Your task to perform on an android device: uninstall "Pandora - Music & Podcasts" Image 0: 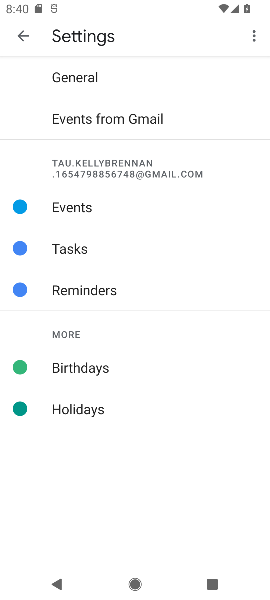
Step 0: click (20, 27)
Your task to perform on an android device: uninstall "Pandora - Music & Podcasts" Image 1: 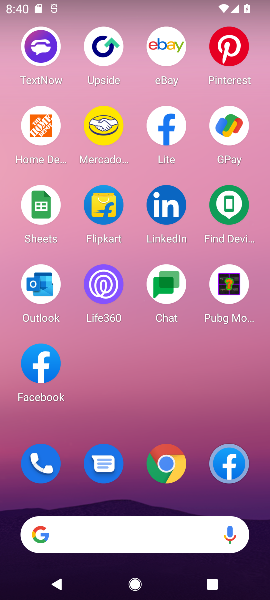
Step 1: drag from (128, 467) to (100, 0)
Your task to perform on an android device: uninstall "Pandora - Music & Podcasts" Image 2: 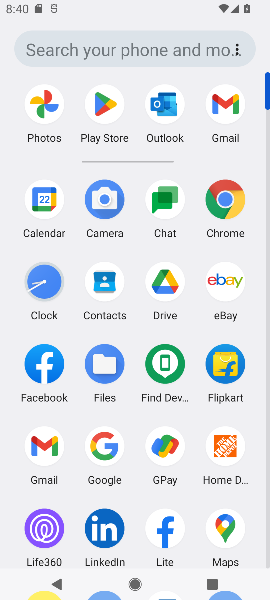
Step 2: click (101, 102)
Your task to perform on an android device: uninstall "Pandora - Music & Podcasts" Image 3: 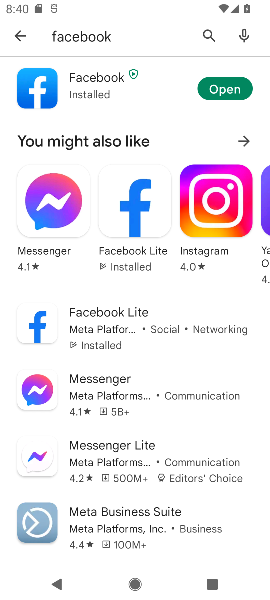
Step 3: click (105, 82)
Your task to perform on an android device: uninstall "Pandora - Music & Podcasts" Image 4: 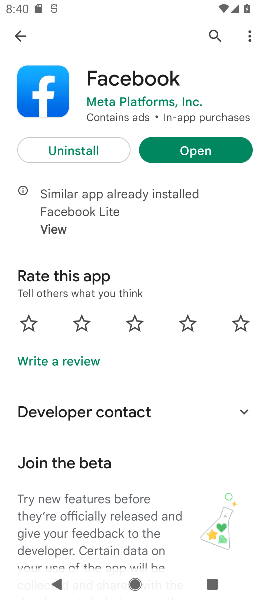
Step 4: click (60, 153)
Your task to perform on an android device: uninstall "Pandora - Music & Podcasts" Image 5: 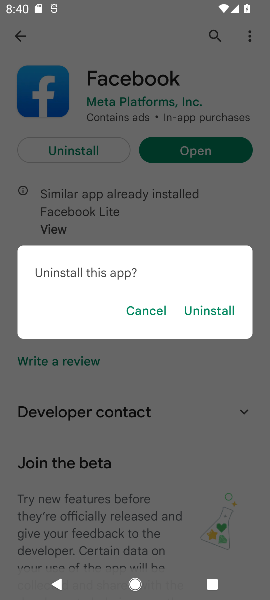
Step 5: click (201, 315)
Your task to perform on an android device: uninstall "Pandora - Music & Podcasts" Image 6: 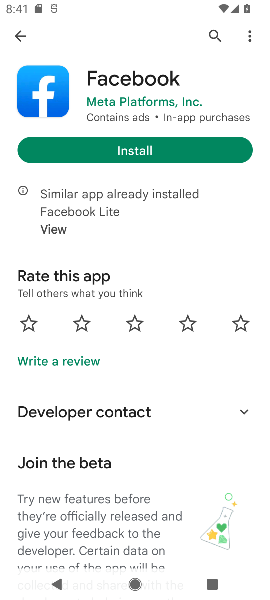
Step 6: task complete